Your task to perform on an android device: check battery use Image 0: 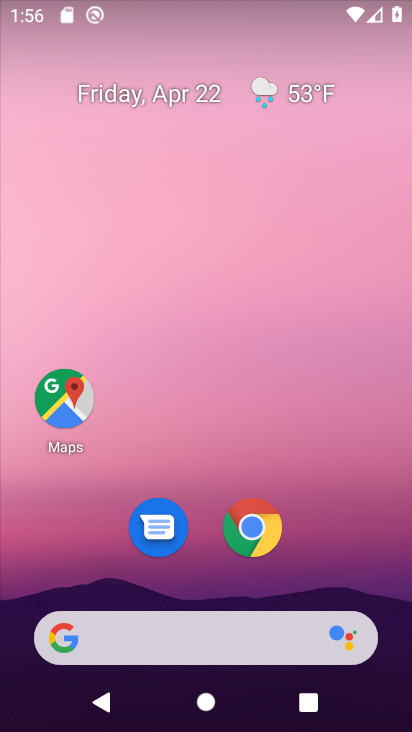
Step 0: drag from (328, 370) to (278, 38)
Your task to perform on an android device: check battery use Image 1: 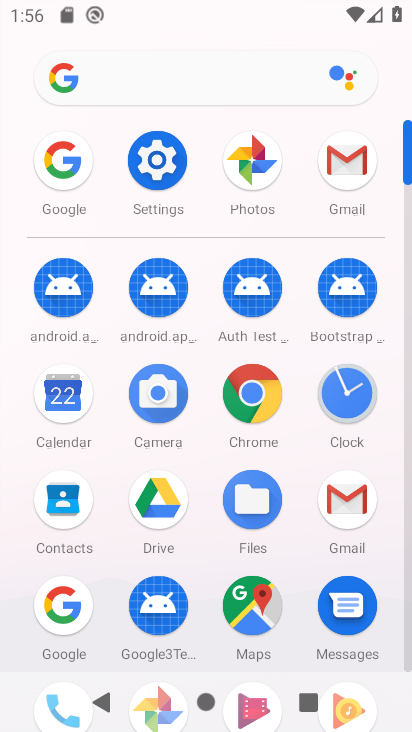
Step 1: click (158, 148)
Your task to perform on an android device: check battery use Image 2: 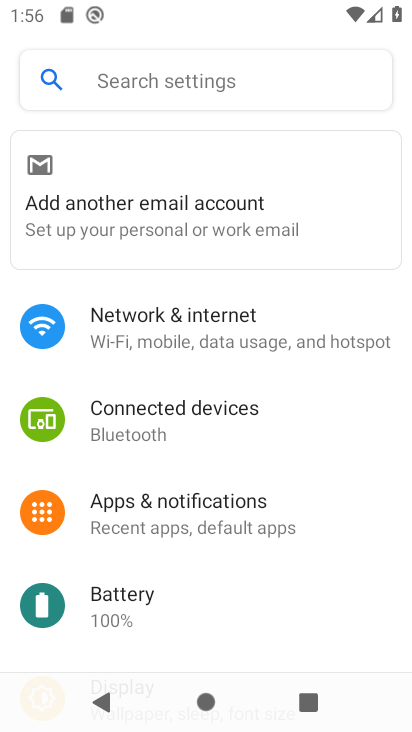
Step 2: click (158, 614)
Your task to perform on an android device: check battery use Image 3: 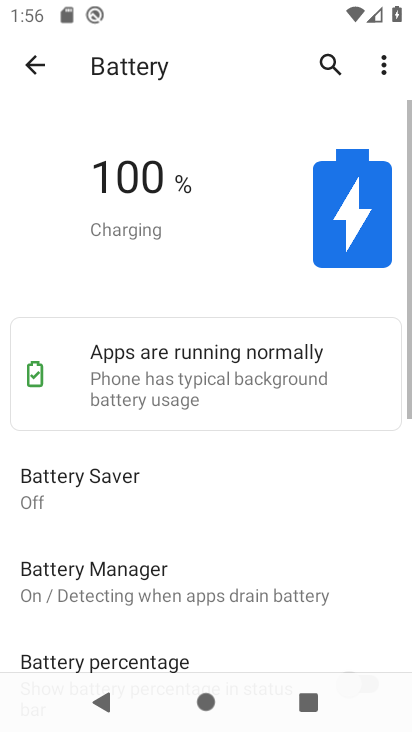
Step 3: click (379, 57)
Your task to perform on an android device: check battery use Image 4: 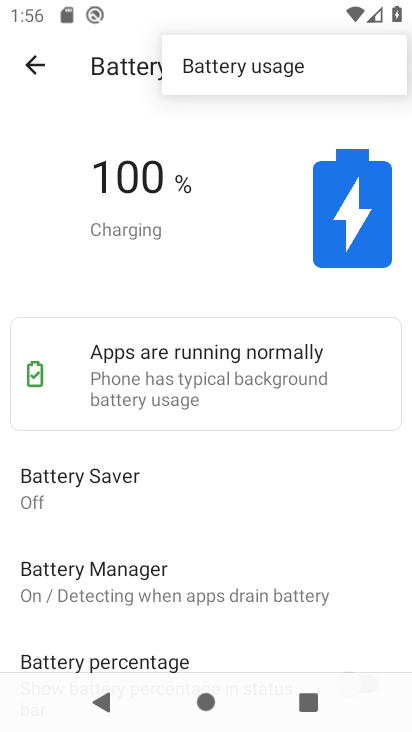
Step 4: click (262, 72)
Your task to perform on an android device: check battery use Image 5: 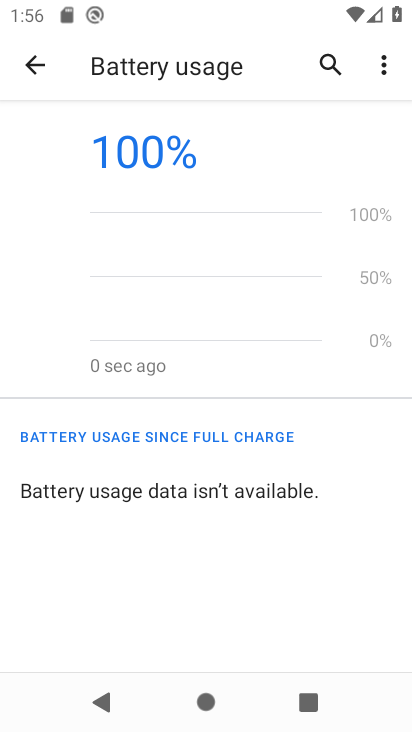
Step 5: task complete